Your task to perform on an android device: toggle translation in the chrome app Image 0: 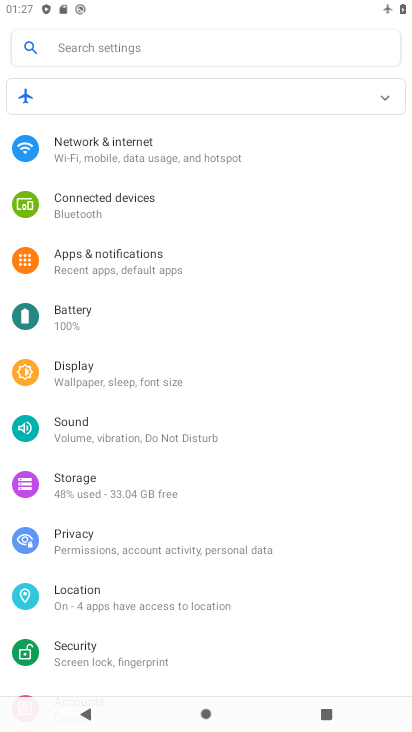
Step 0: drag from (156, 605) to (153, 460)
Your task to perform on an android device: toggle translation in the chrome app Image 1: 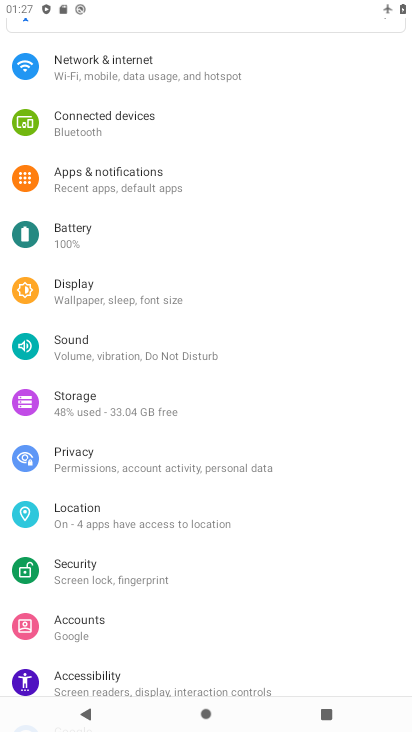
Step 1: click (168, 314)
Your task to perform on an android device: toggle translation in the chrome app Image 2: 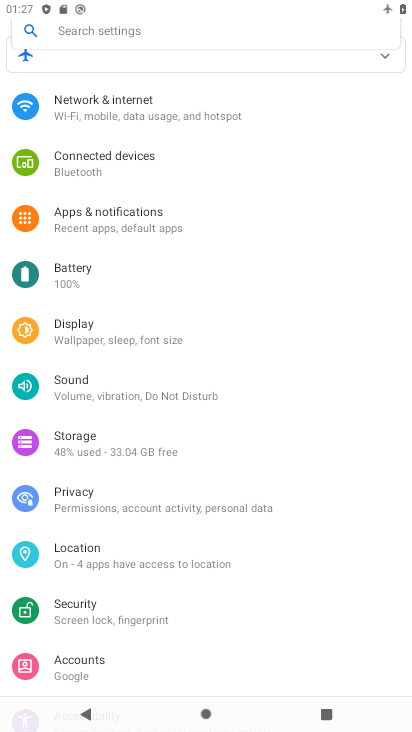
Step 2: press home button
Your task to perform on an android device: toggle translation in the chrome app Image 3: 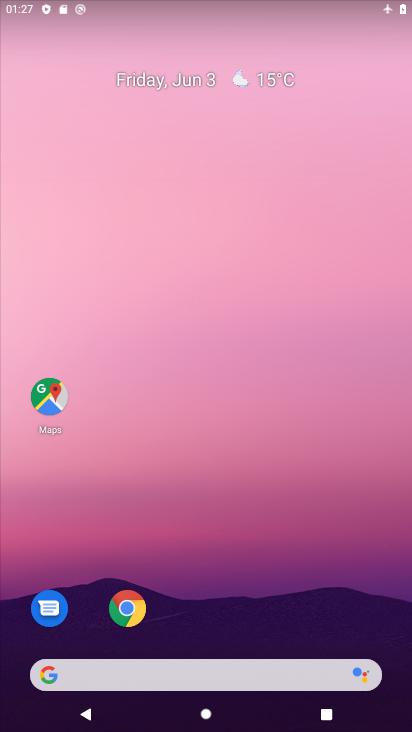
Step 3: click (125, 613)
Your task to perform on an android device: toggle translation in the chrome app Image 4: 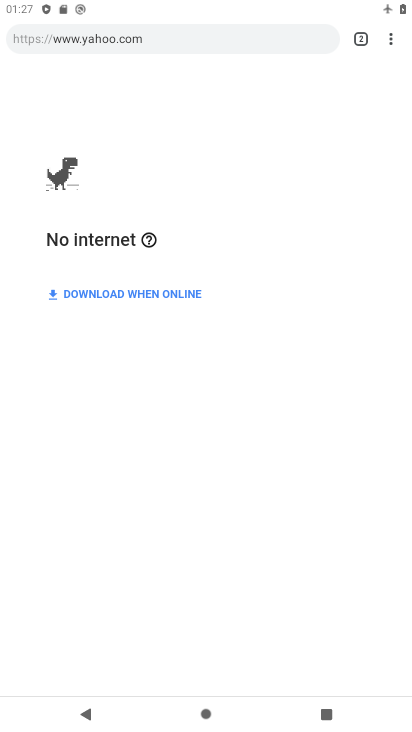
Step 4: click (390, 41)
Your task to perform on an android device: toggle translation in the chrome app Image 5: 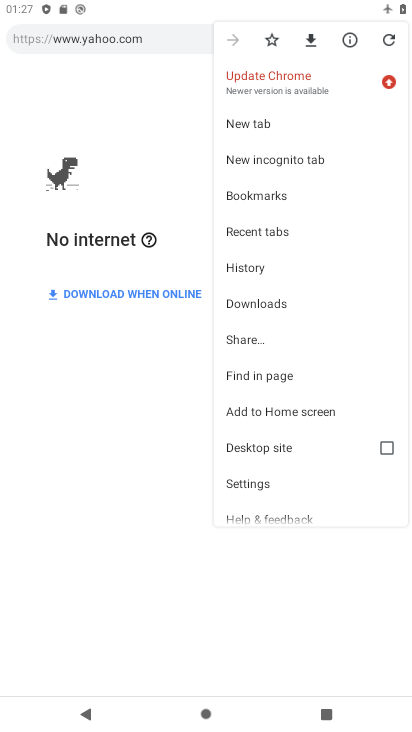
Step 5: click (280, 487)
Your task to perform on an android device: toggle translation in the chrome app Image 6: 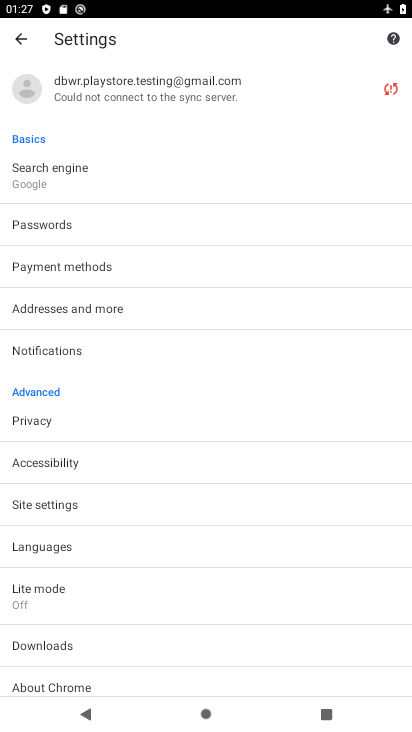
Step 6: click (72, 556)
Your task to perform on an android device: toggle translation in the chrome app Image 7: 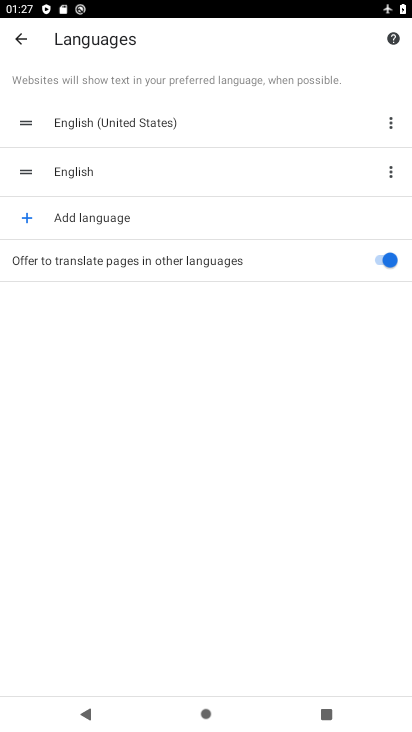
Step 7: click (375, 258)
Your task to perform on an android device: toggle translation in the chrome app Image 8: 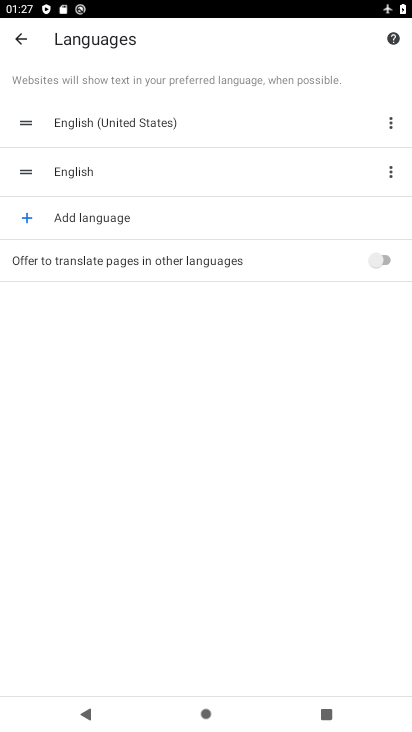
Step 8: task complete